Your task to perform on an android device: open chrome and create a bookmark for the current page Image 0: 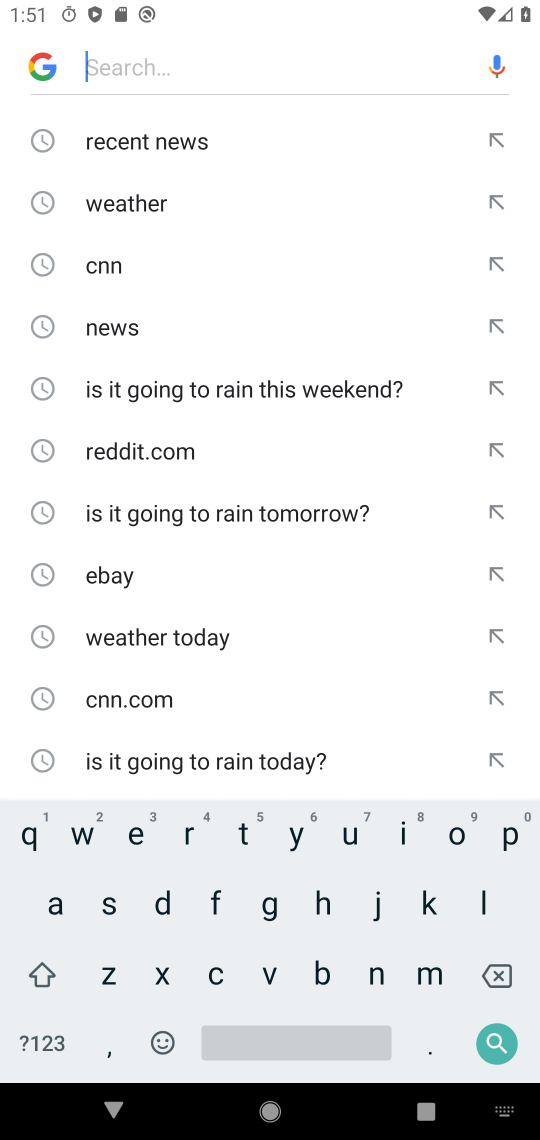
Step 0: press home button
Your task to perform on an android device: open chrome and create a bookmark for the current page Image 1: 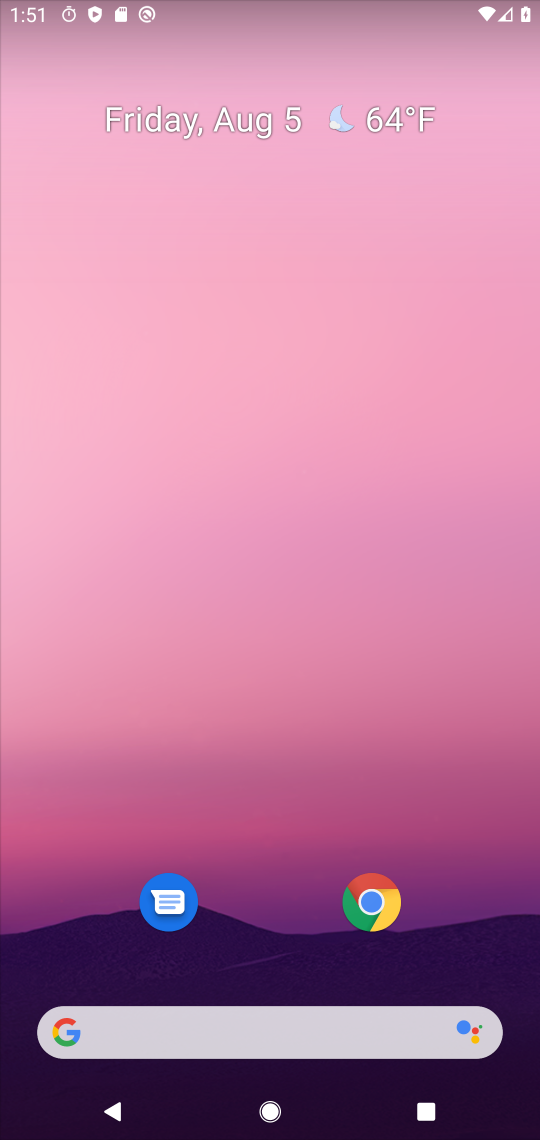
Step 1: drag from (301, 1039) to (243, 279)
Your task to perform on an android device: open chrome and create a bookmark for the current page Image 2: 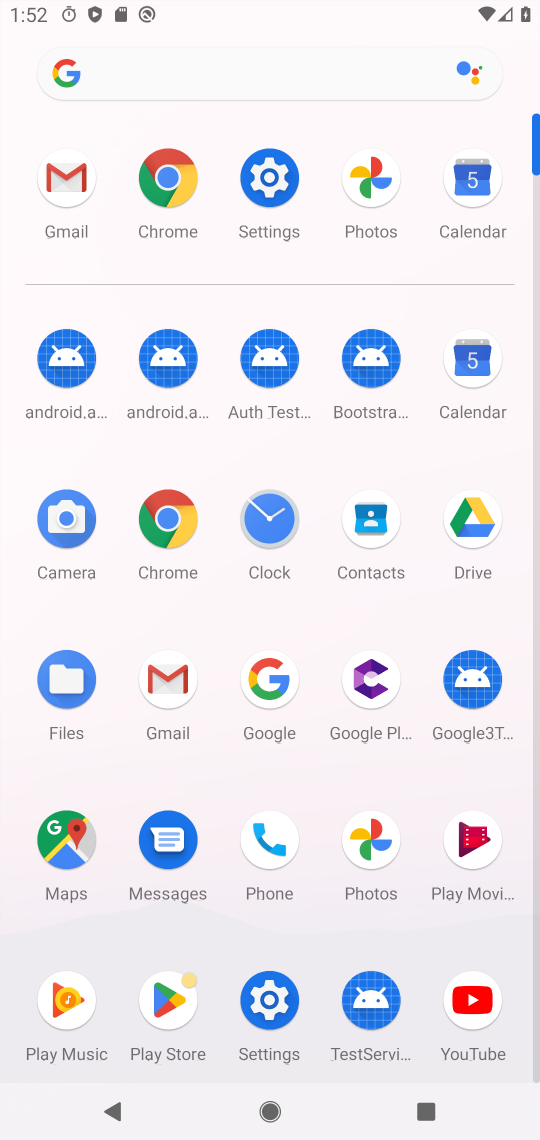
Step 2: click (177, 176)
Your task to perform on an android device: open chrome and create a bookmark for the current page Image 3: 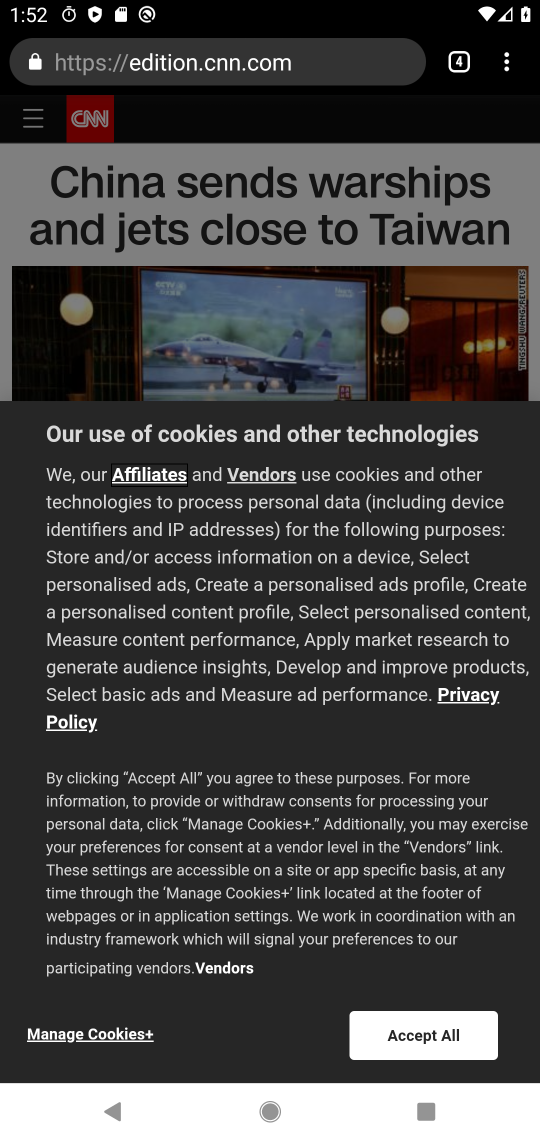
Step 3: click (505, 62)
Your task to perform on an android device: open chrome and create a bookmark for the current page Image 4: 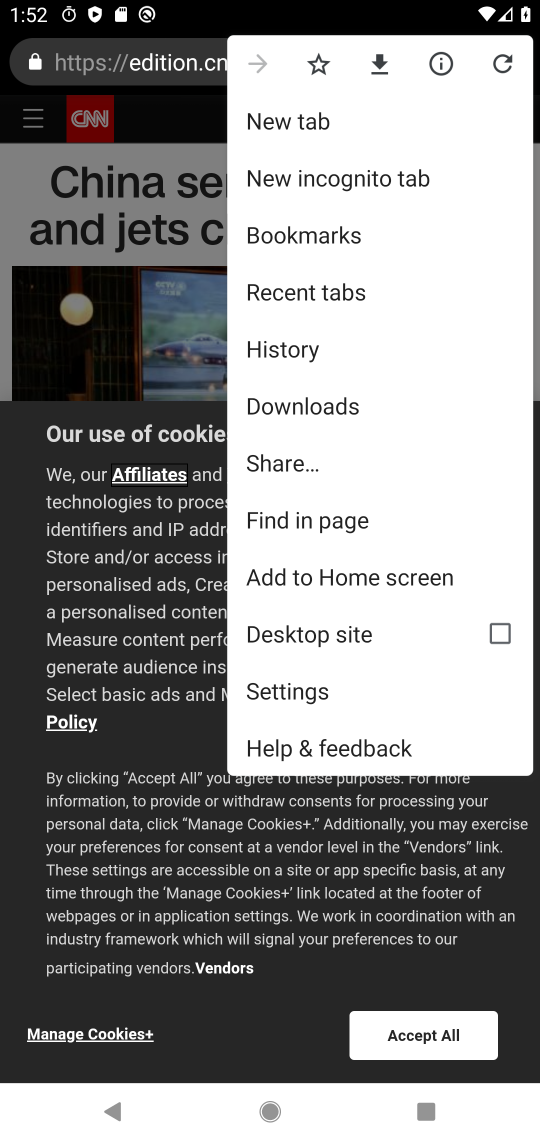
Step 4: click (317, 244)
Your task to perform on an android device: open chrome and create a bookmark for the current page Image 5: 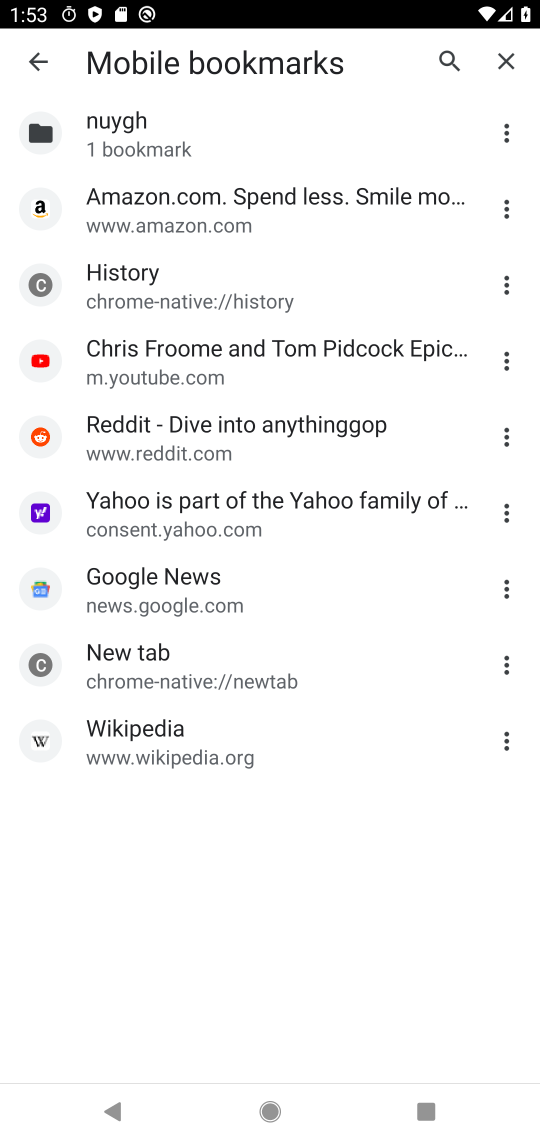
Step 5: task complete